Your task to perform on an android device: clear history in the chrome app Image 0: 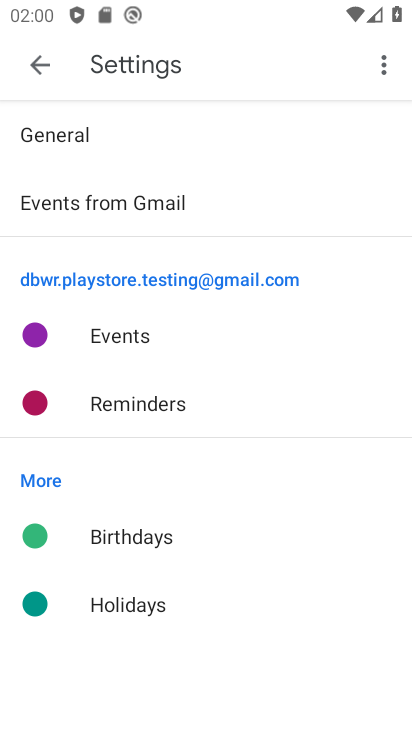
Step 0: press home button
Your task to perform on an android device: clear history in the chrome app Image 1: 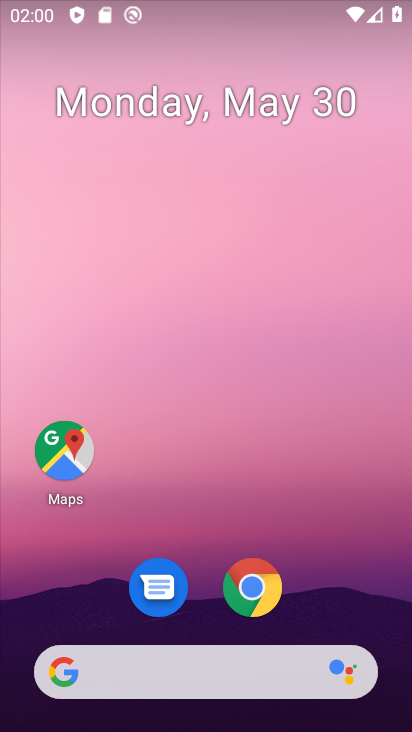
Step 1: click (262, 606)
Your task to perform on an android device: clear history in the chrome app Image 2: 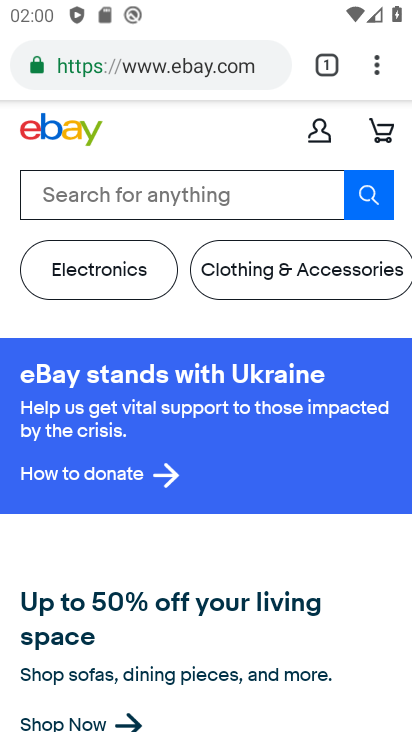
Step 2: click (334, 66)
Your task to perform on an android device: clear history in the chrome app Image 3: 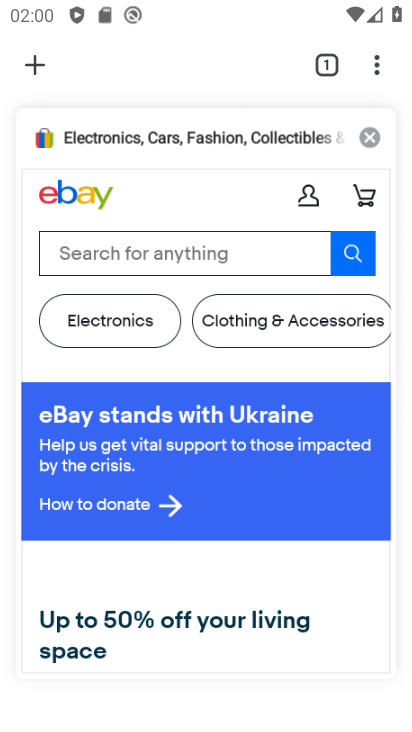
Step 3: click (382, 71)
Your task to perform on an android device: clear history in the chrome app Image 4: 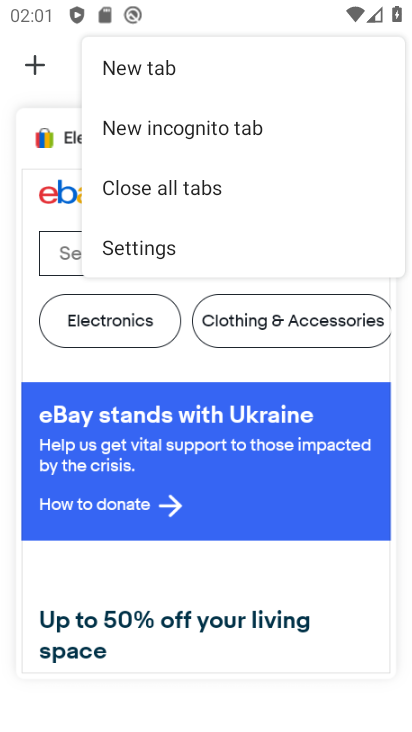
Step 4: click (35, 71)
Your task to perform on an android device: clear history in the chrome app Image 5: 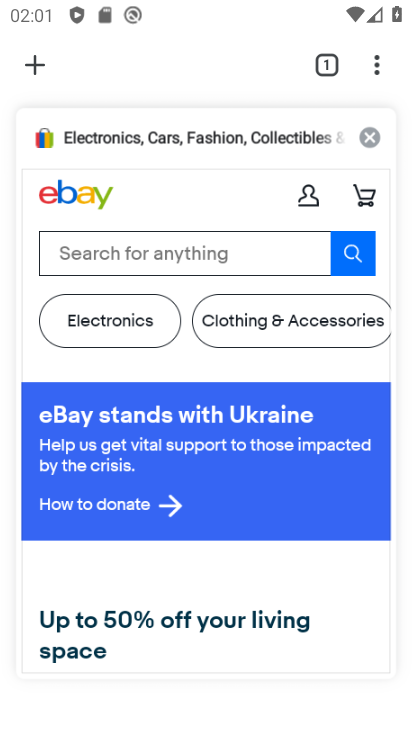
Step 5: click (224, 153)
Your task to perform on an android device: clear history in the chrome app Image 6: 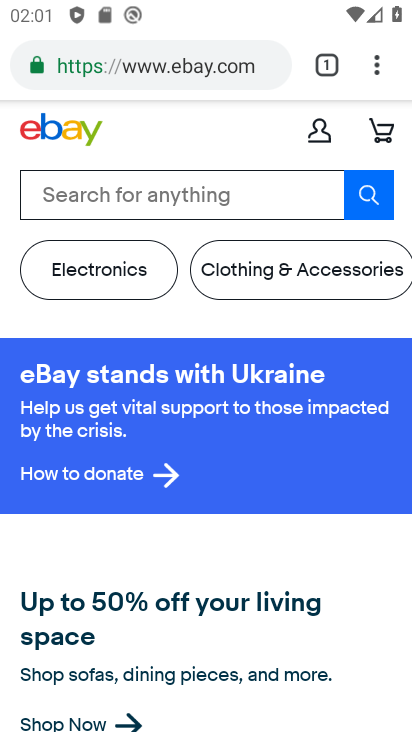
Step 6: click (378, 62)
Your task to perform on an android device: clear history in the chrome app Image 7: 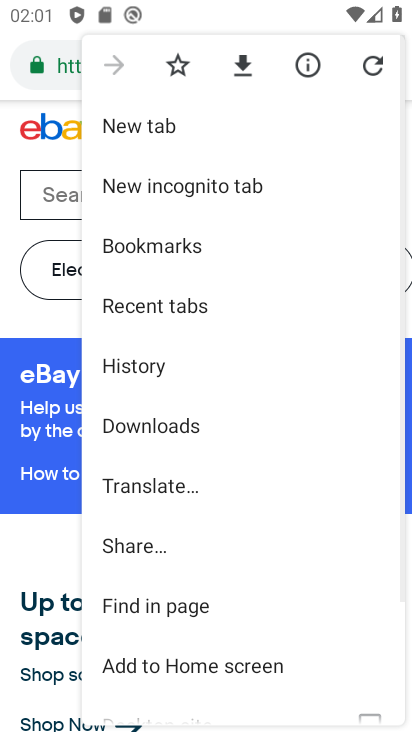
Step 7: click (164, 381)
Your task to perform on an android device: clear history in the chrome app Image 8: 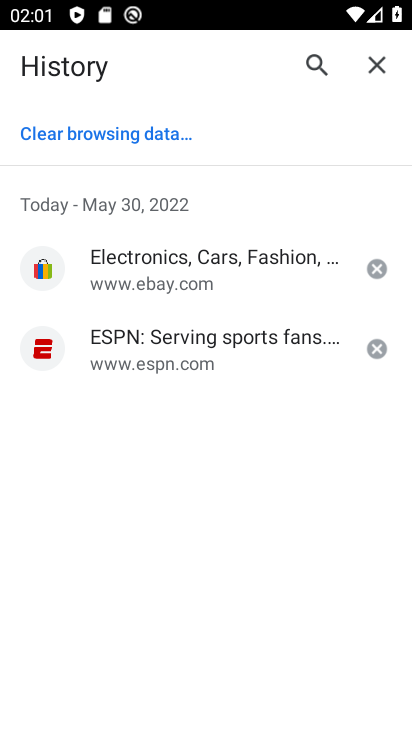
Step 8: click (117, 131)
Your task to perform on an android device: clear history in the chrome app Image 9: 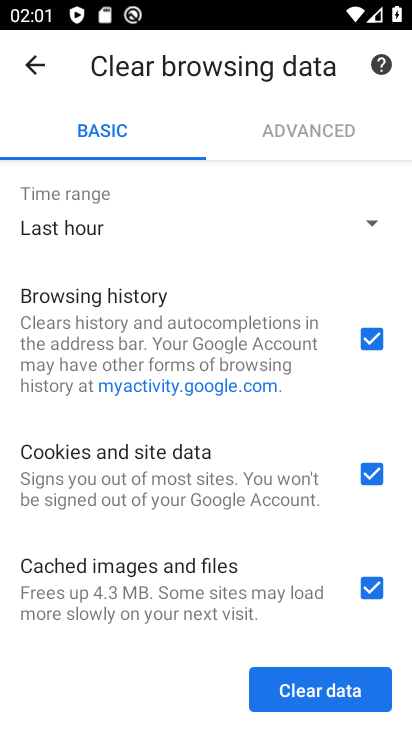
Step 9: click (377, 593)
Your task to perform on an android device: clear history in the chrome app Image 10: 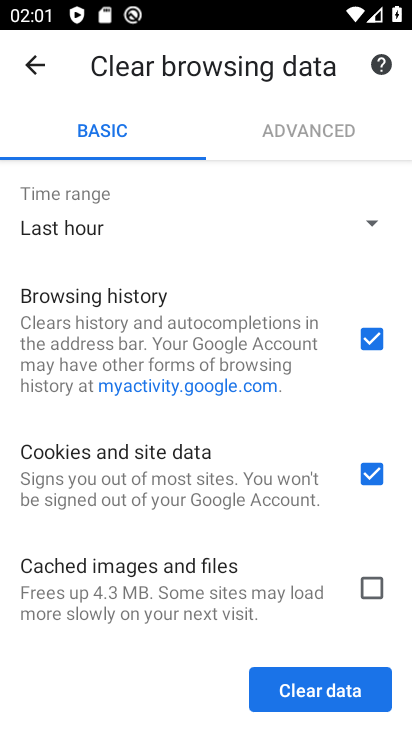
Step 10: click (370, 468)
Your task to perform on an android device: clear history in the chrome app Image 11: 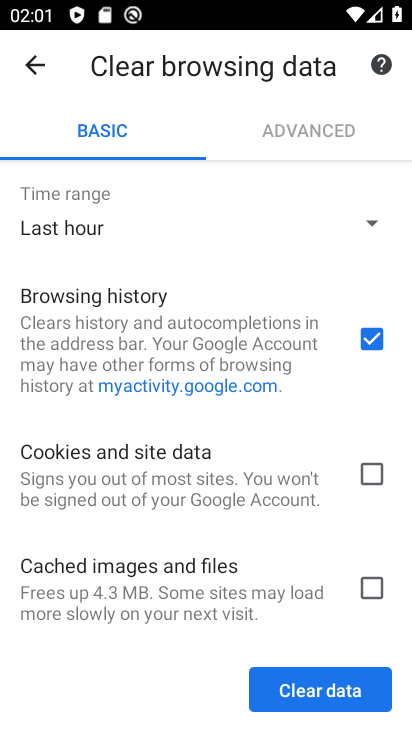
Step 11: click (343, 686)
Your task to perform on an android device: clear history in the chrome app Image 12: 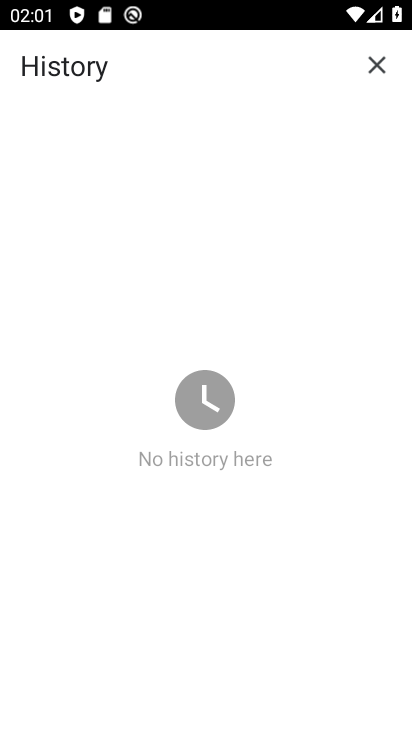
Step 12: task complete